Your task to perform on an android device: delete a single message in the gmail app Image 0: 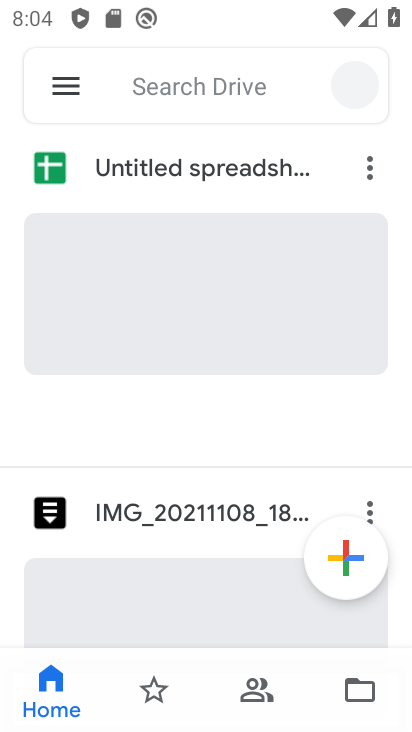
Step 0: press home button
Your task to perform on an android device: delete a single message in the gmail app Image 1: 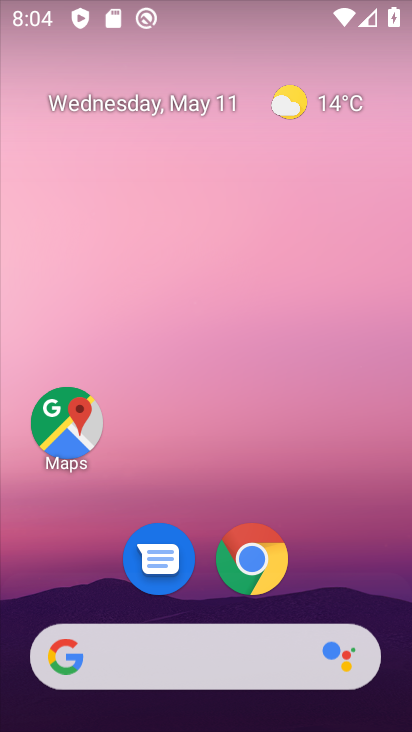
Step 1: drag from (355, 575) to (361, 195)
Your task to perform on an android device: delete a single message in the gmail app Image 2: 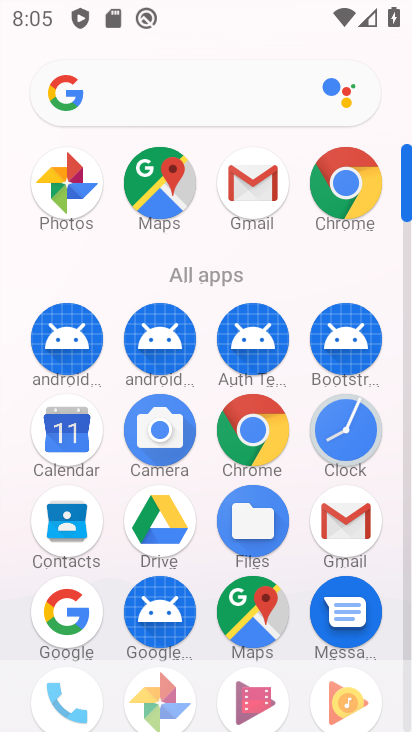
Step 2: click (240, 187)
Your task to perform on an android device: delete a single message in the gmail app Image 3: 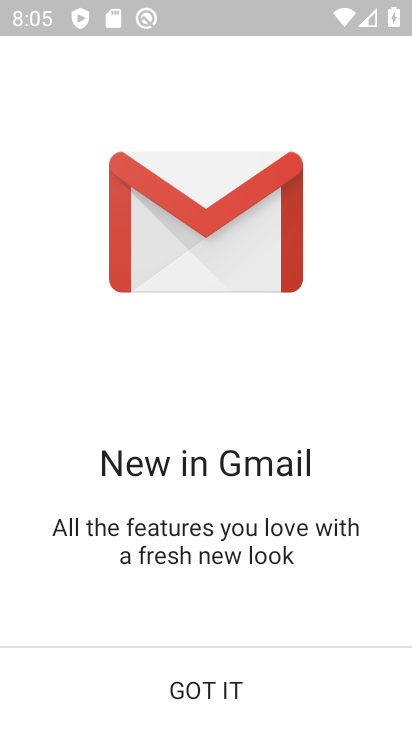
Step 3: click (179, 702)
Your task to perform on an android device: delete a single message in the gmail app Image 4: 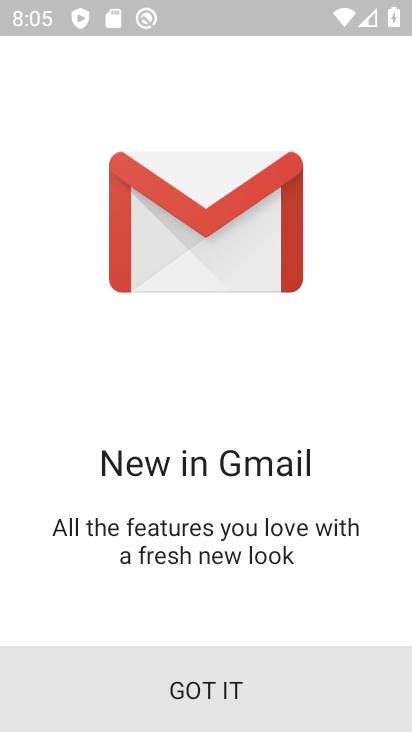
Step 4: click (179, 702)
Your task to perform on an android device: delete a single message in the gmail app Image 5: 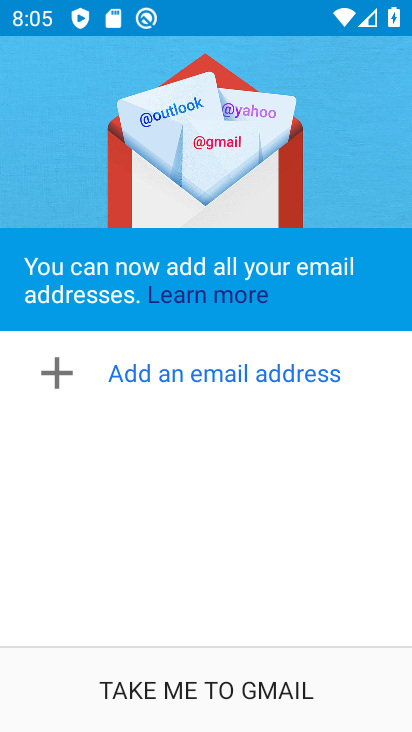
Step 5: click (179, 702)
Your task to perform on an android device: delete a single message in the gmail app Image 6: 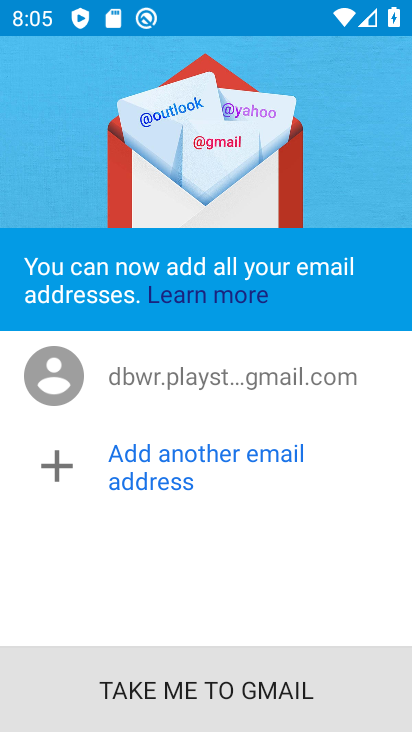
Step 6: click (179, 702)
Your task to perform on an android device: delete a single message in the gmail app Image 7: 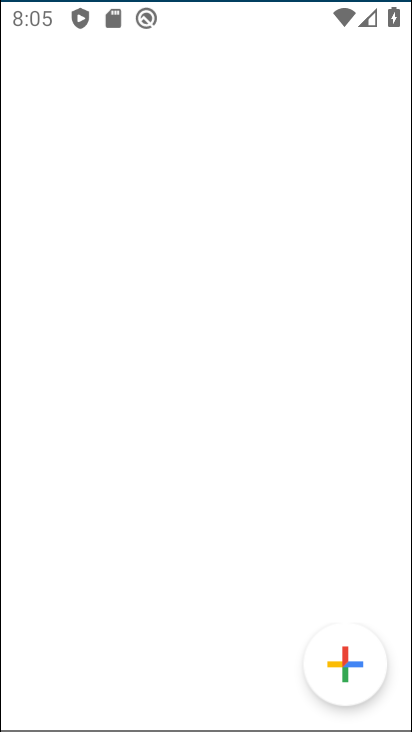
Step 7: click (179, 702)
Your task to perform on an android device: delete a single message in the gmail app Image 8: 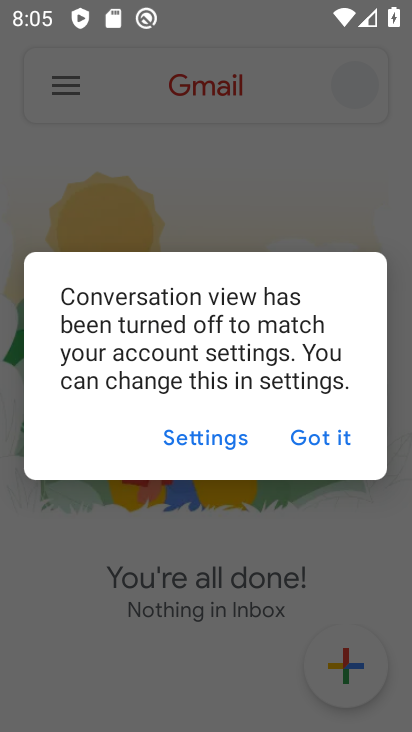
Step 8: click (294, 443)
Your task to perform on an android device: delete a single message in the gmail app Image 9: 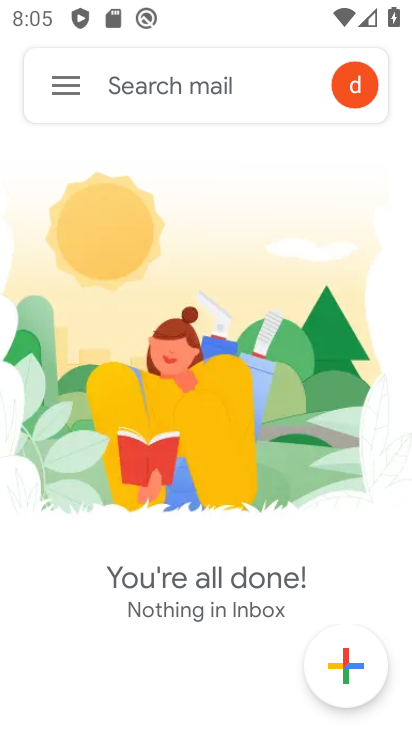
Step 9: click (68, 91)
Your task to perform on an android device: delete a single message in the gmail app Image 10: 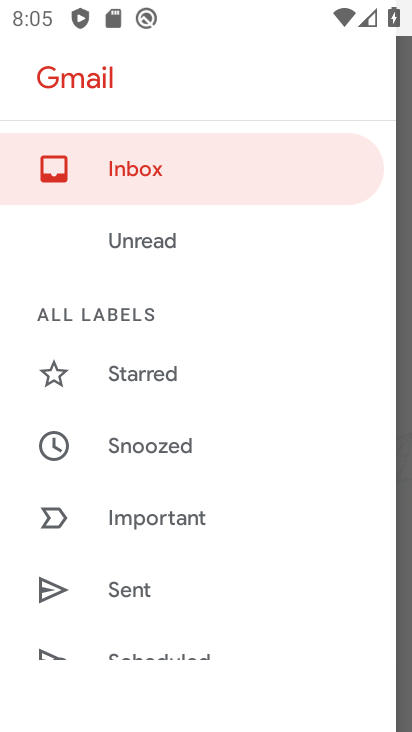
Step 10: task complete